Your task to perform on an android device: set the stopwatch Image 0: 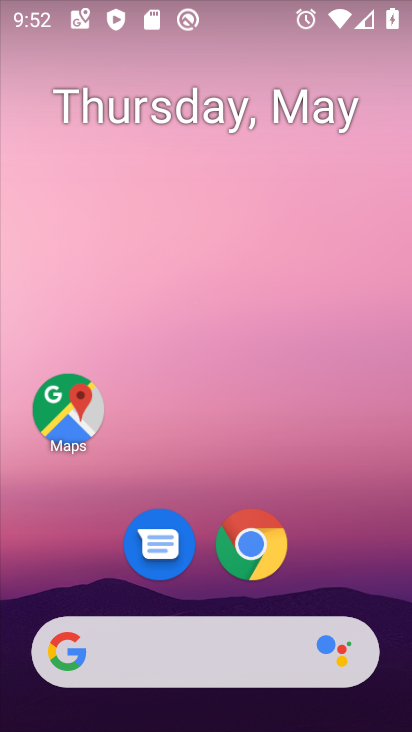
Step 0: drag from (318, 553) to (357, 185)
Your task to perform on an android device: set the stopwatch Image 1: 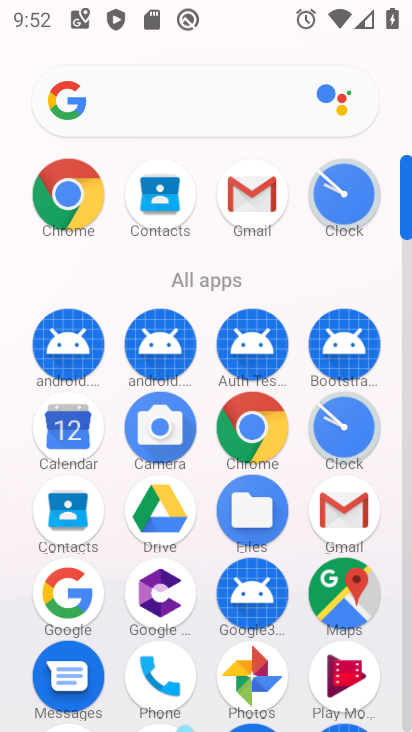
Step 1: click (343, 436)
Your task to perform on an android device: set the stopwatch Image 2: 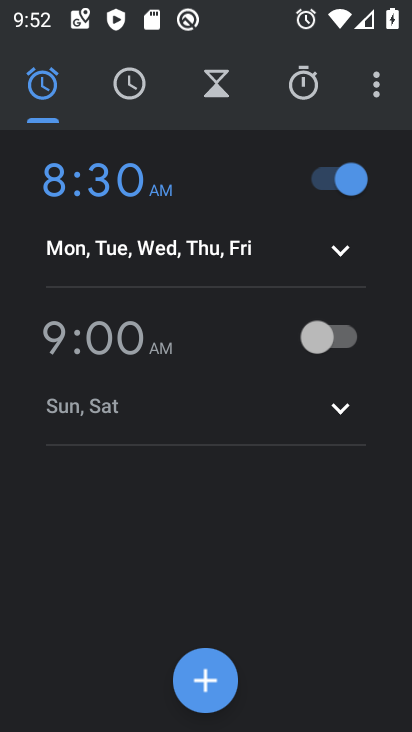
Step 2: click (311, 94)
Your task to perform on an android device: set the stopwatch Image 3: 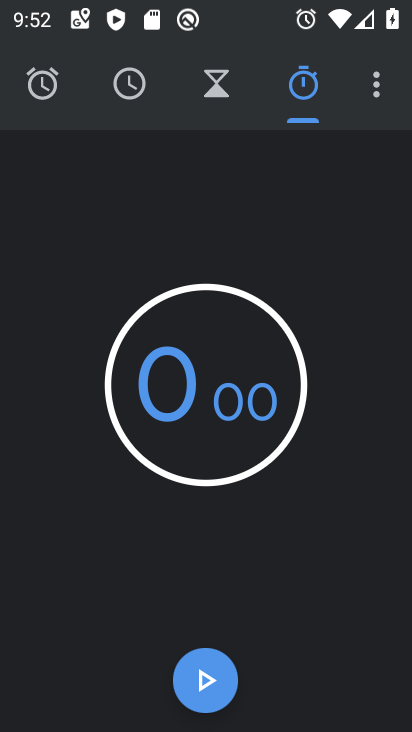
Step 3: click (209, 405)
Your task to perform on an android device: set the stopwatch Image 4: 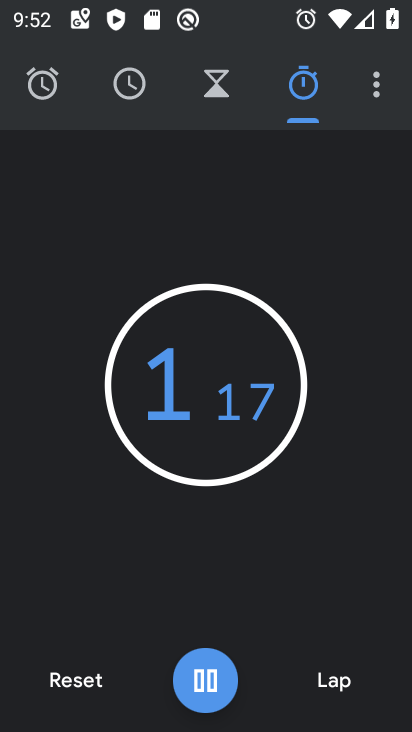
Step 4: click (209, 405)
Your task to perform on an android device: set the stopwatch Image 5: 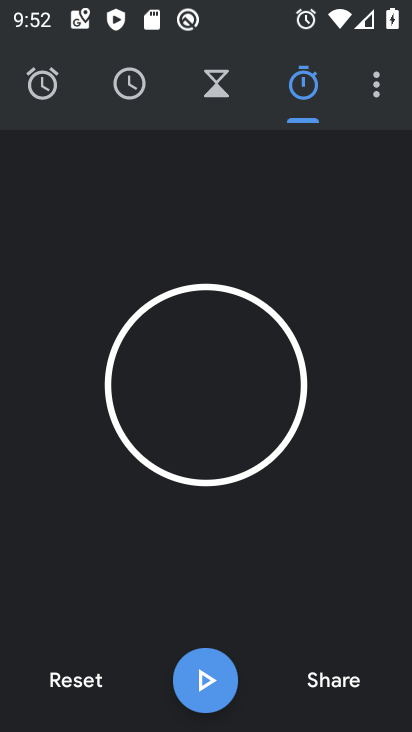
Step 5: task complete